Your task to perform on an android device: check data usage Image 0: 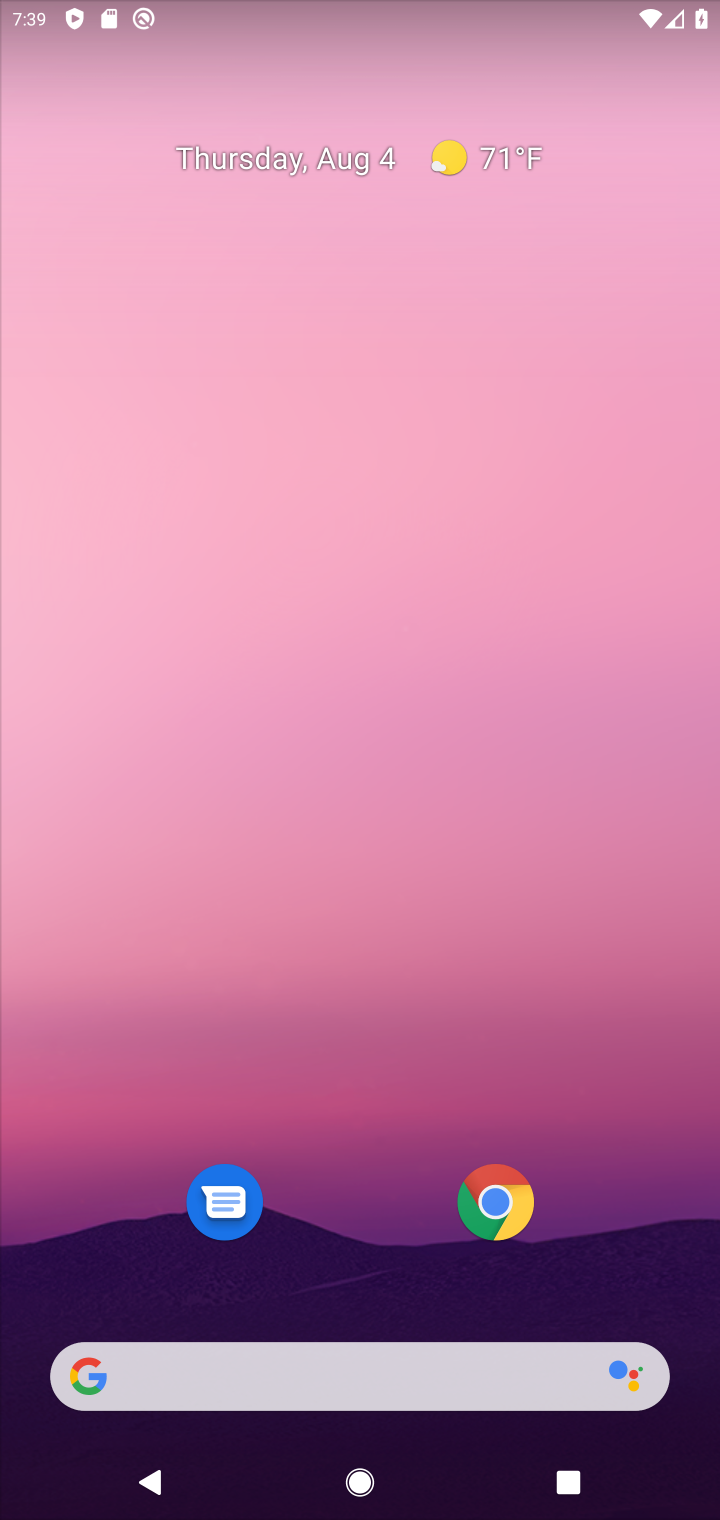
Step 0: drag from (364, 1114) to (411, 766)
Your task to perform on an android device: check data usage Image 1: 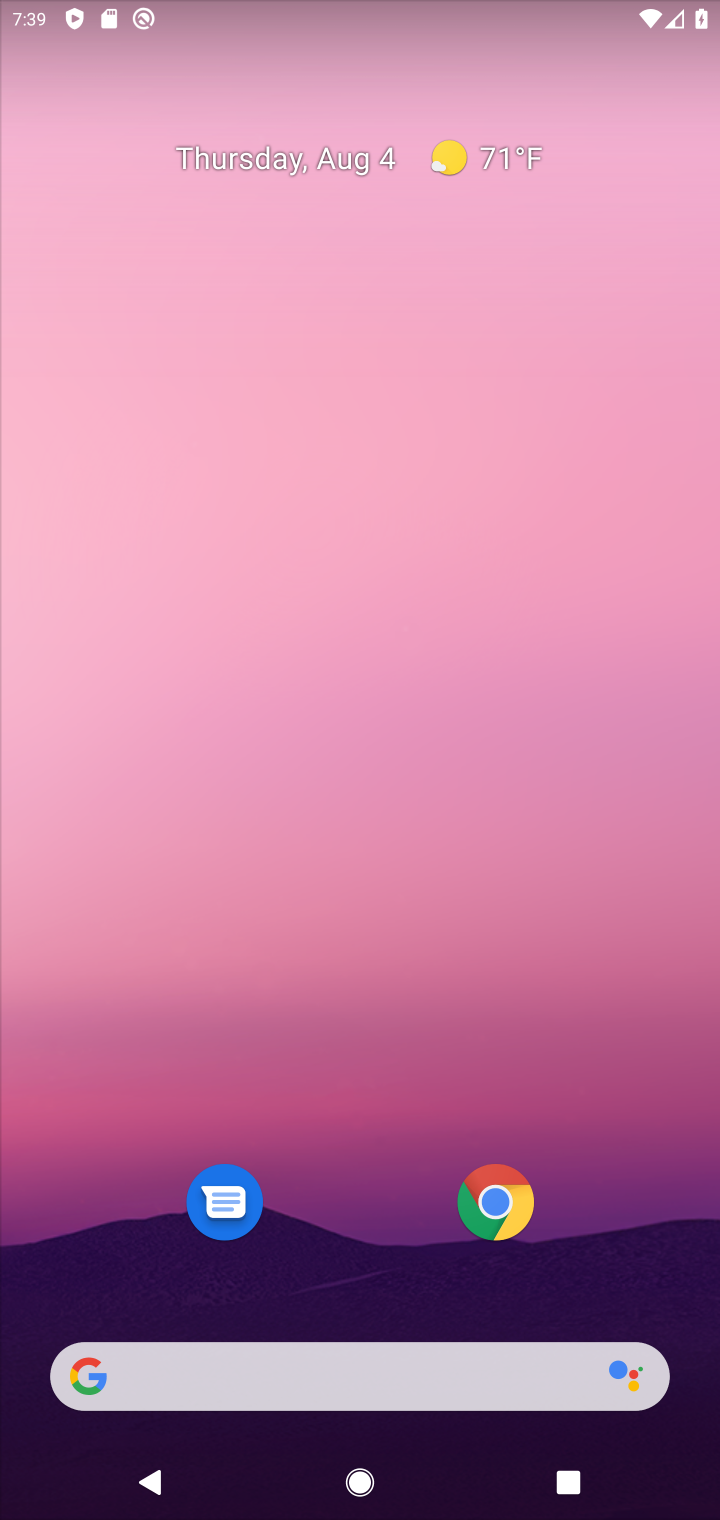
Step 1: drag from (370, 1081) to (370, 295)
Your task to perform on an android device: check data usage Image 2: 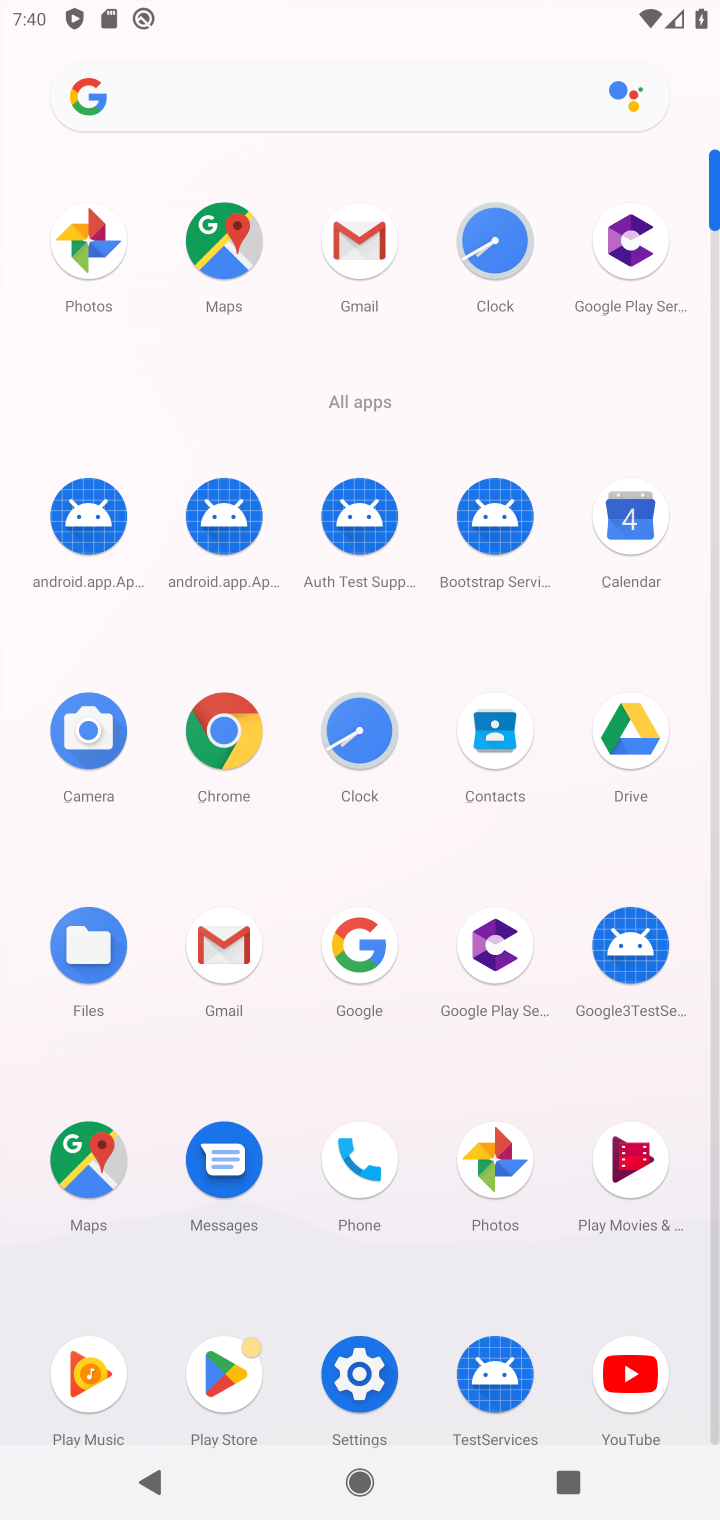
Step 2: click (365, 1374)
Your task to perform on an android device: check data usage Image 3: 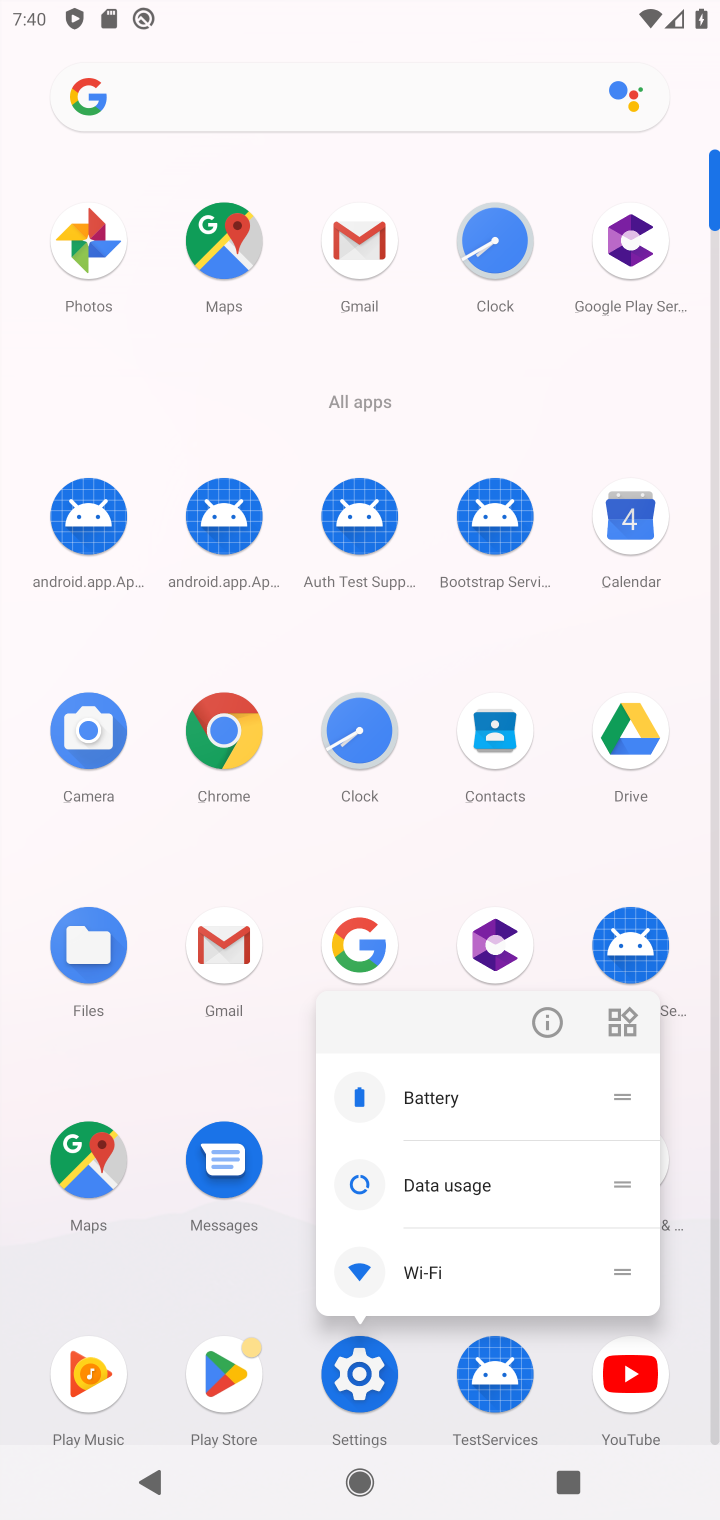
Step 3: click (550, 1023)
Your task to perform on an android device: check data usage Image 4: 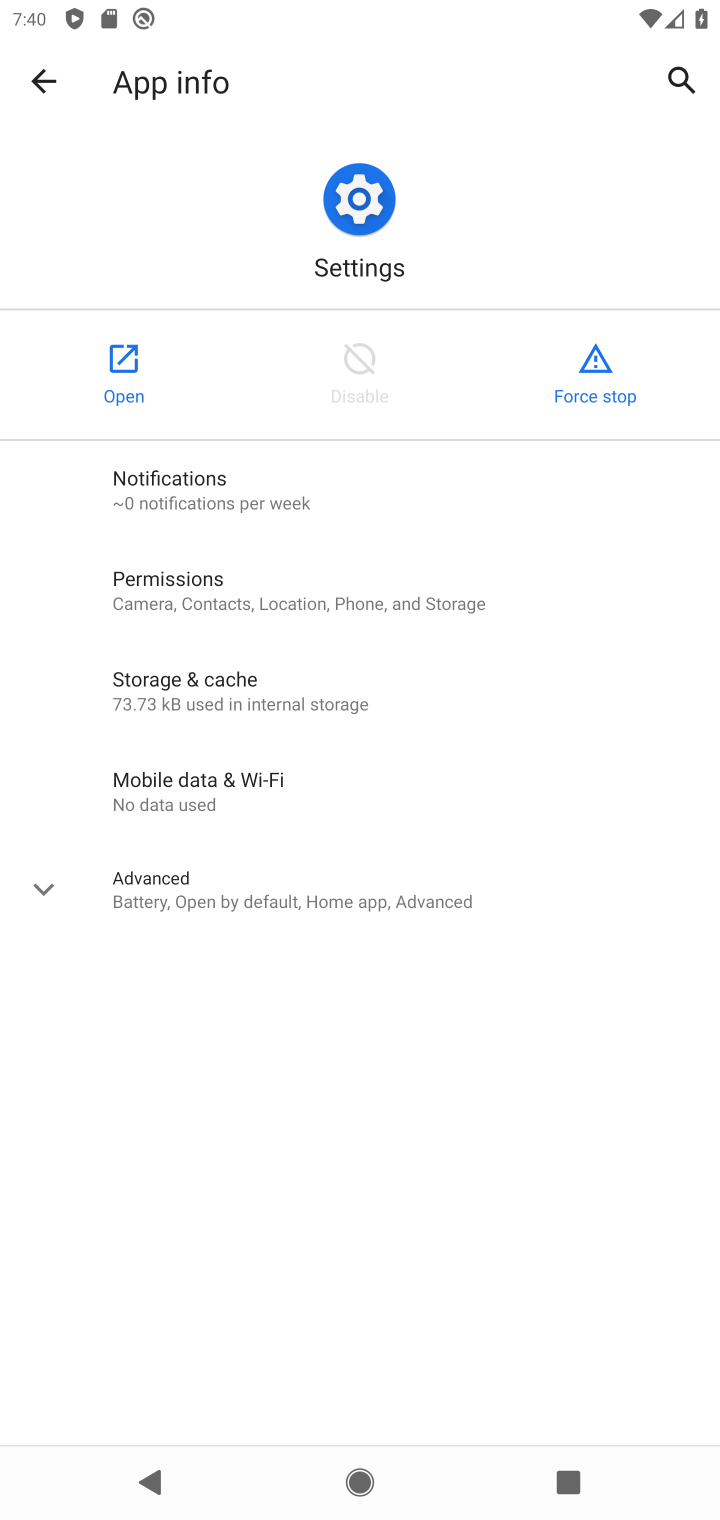
Step 4: click (125, 331)
Your task to perform on an android device: check data usage Image 5: 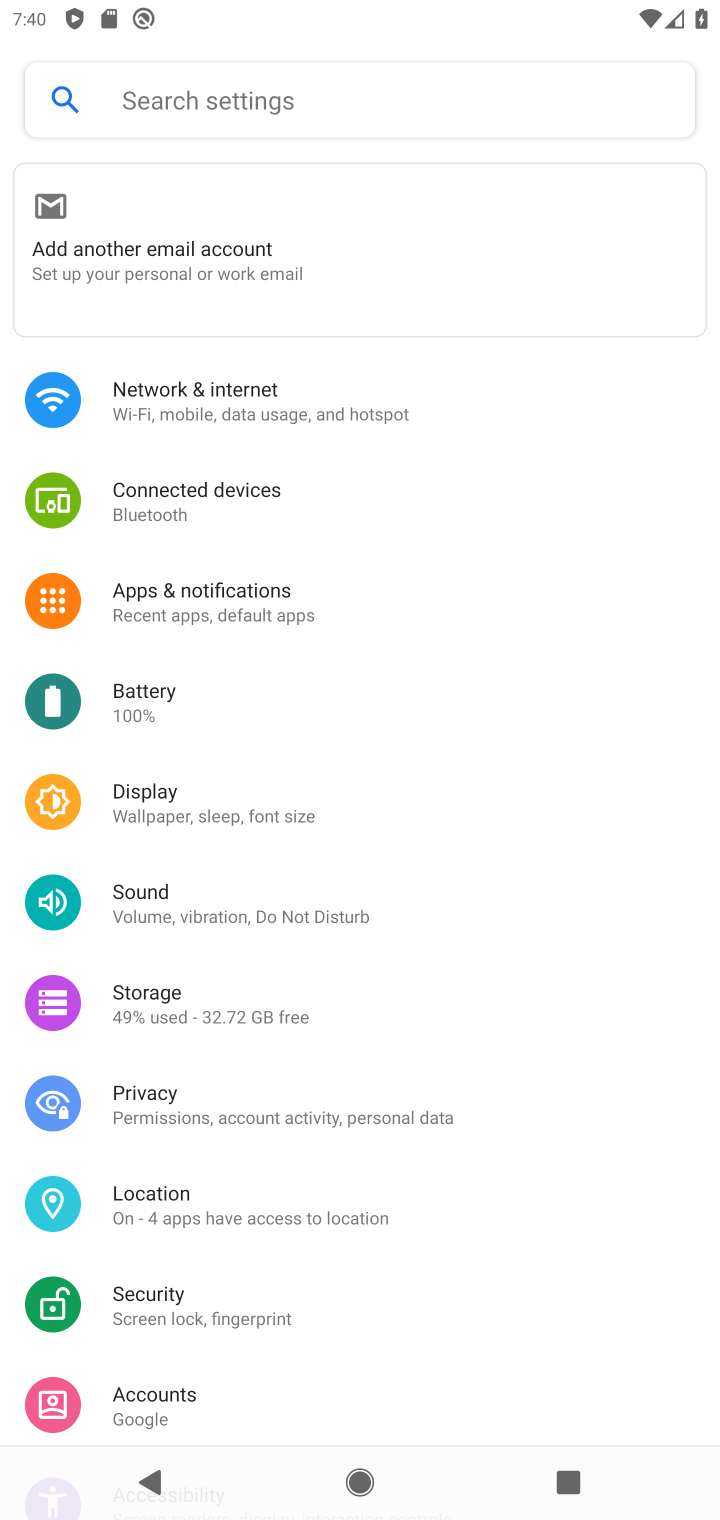
Step 5: click (273, 403)
Your task to perform on an android device: check data usage Image 6: 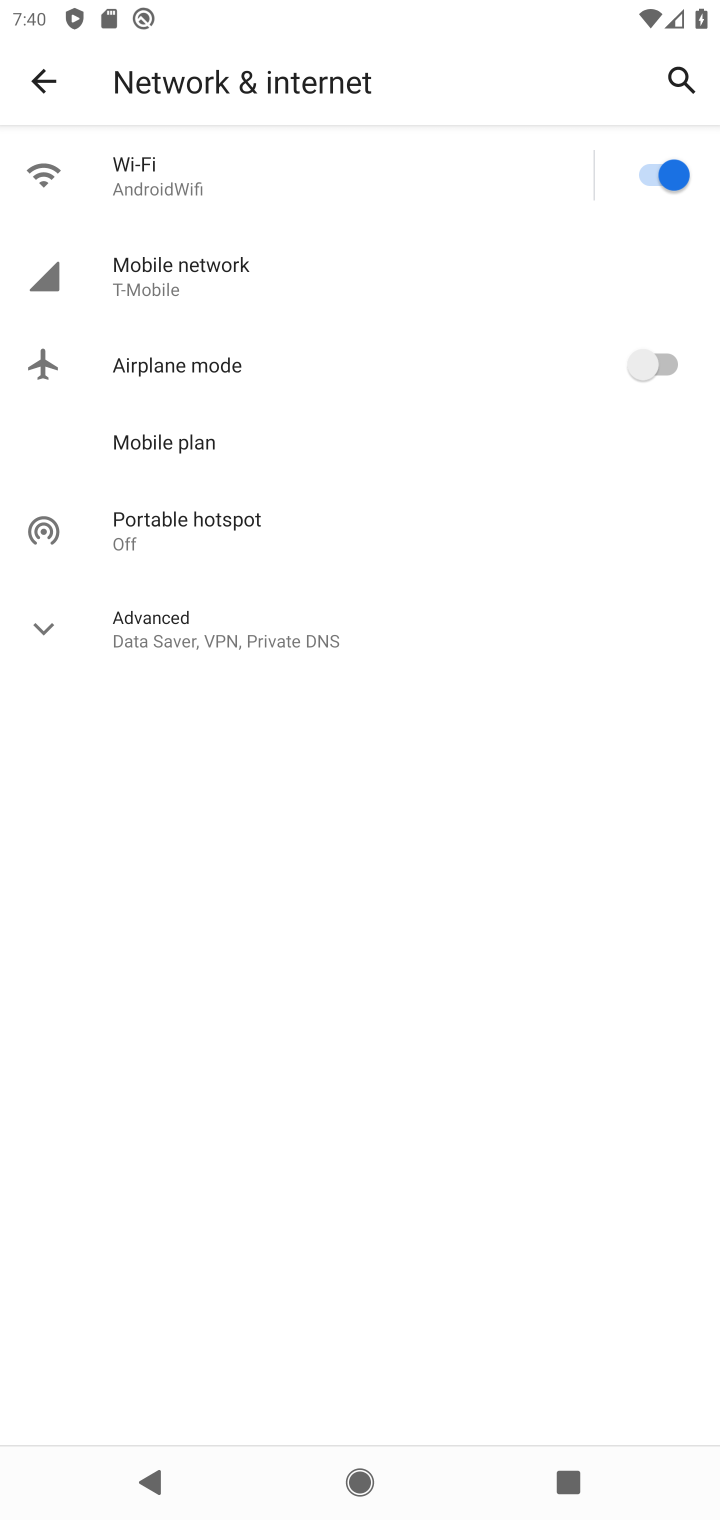
Step 6: click (201, 266)
Your task to perform on an android device: check data usage Image 7: 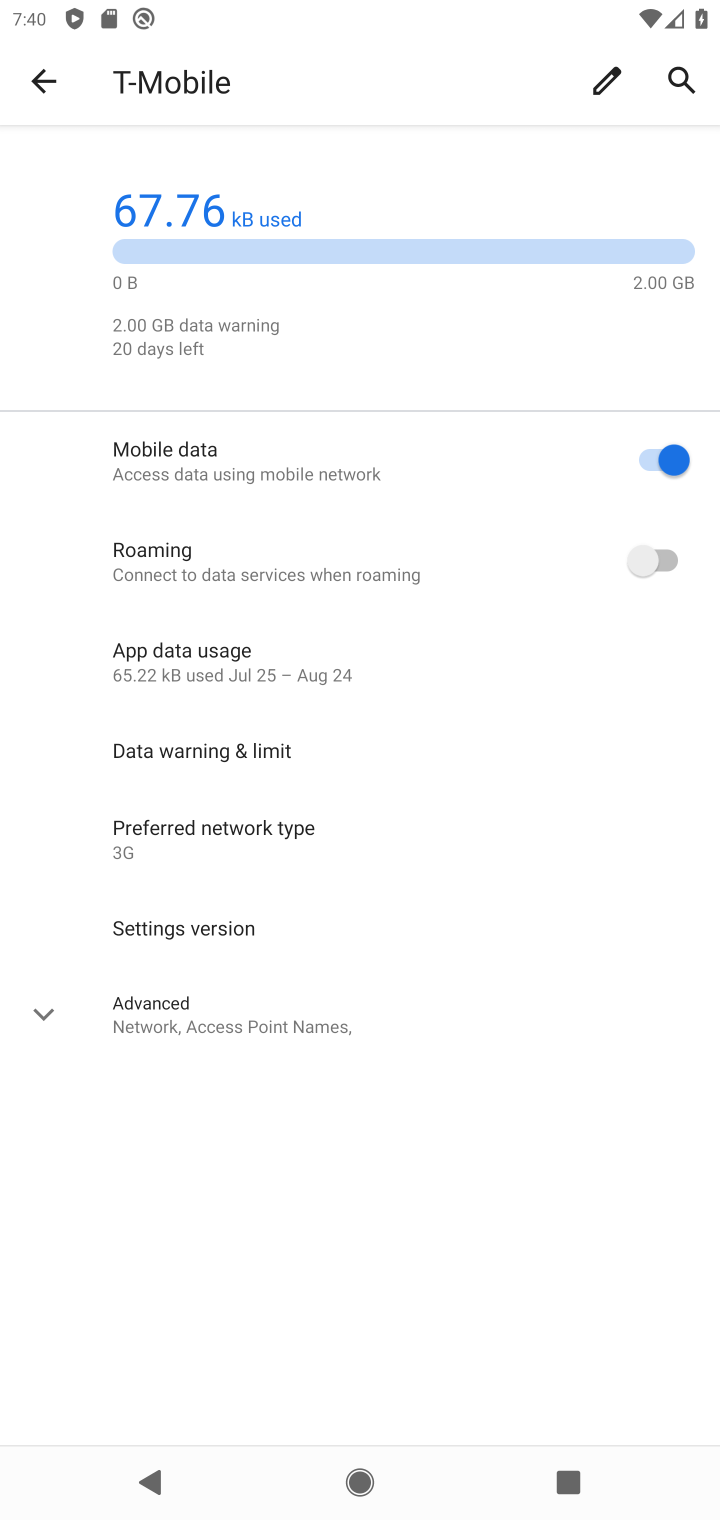
Step 7: task complete